Your task to perform on an android device: Search for pizza restaurants on Maps Image 0: 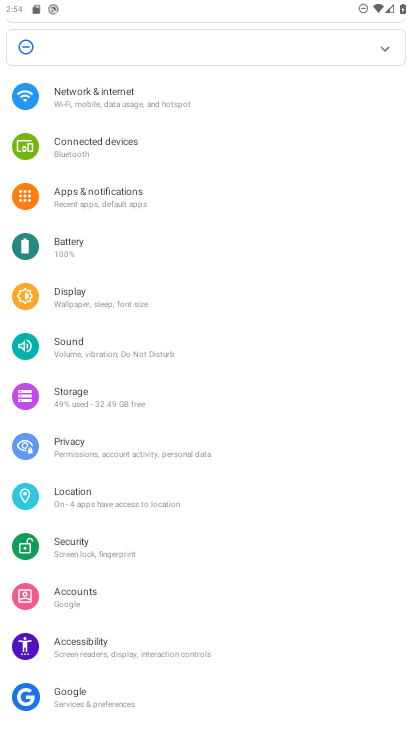
Step 0: press back button
Your task to perform on an android device: Search for pizza restaurants on Maps Image 1: 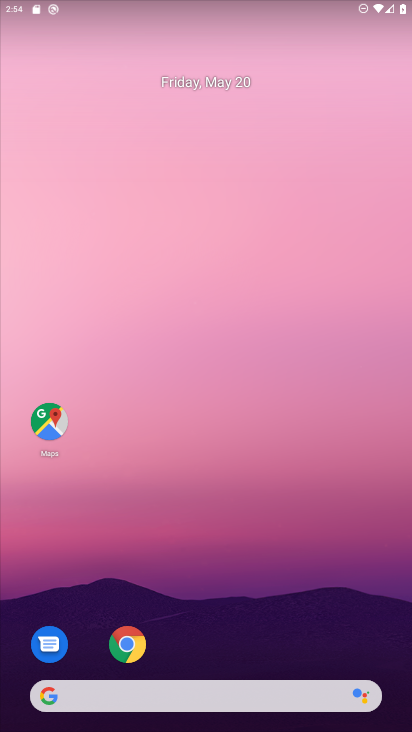
Step 1: click (48, 420)
Your task to perform on an android device: Search for pizza restaurants on Maps Image 2: 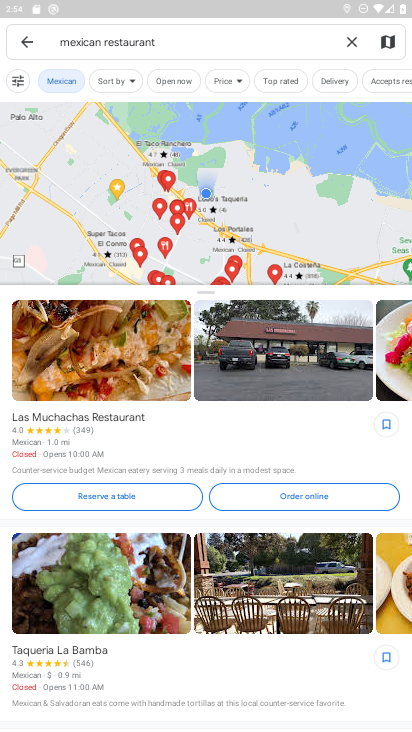
Step 2: click (353, 44)
Your task to perform on an android device: Search for pizza restaurants on Maps Image 3: 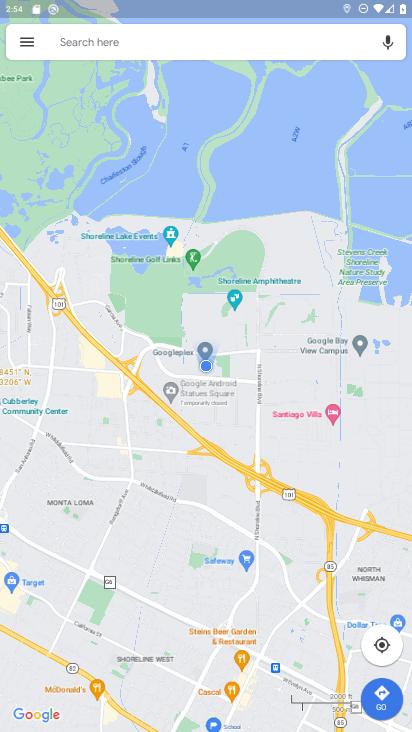
Step 3: click (283, 49)
Your task to perform on an android device: Search for pizza restaurants on Maps Image 4: 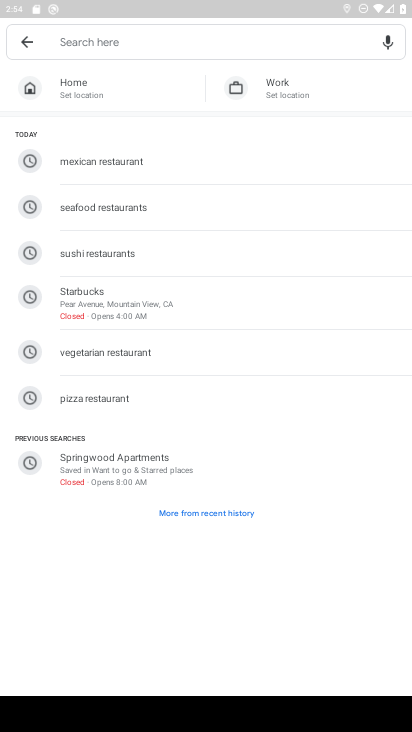
Step 4: type "pizza restaurants"
Your task to perform on an android device: Search for pizza restaurants on Maps Image 5: 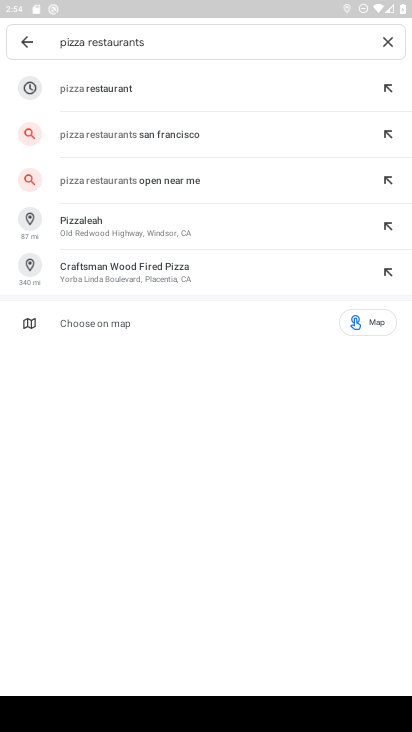
Step 5: click (111, 92)
Your task to perform on an android device: Search for pizza restaurants on Maps Image 6: 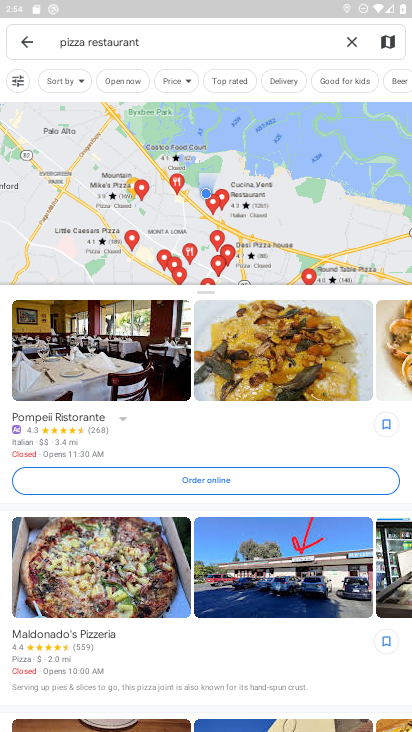
Step 6: task complete